Your task to perform on an android device: What's on my calendar today? Image 0: 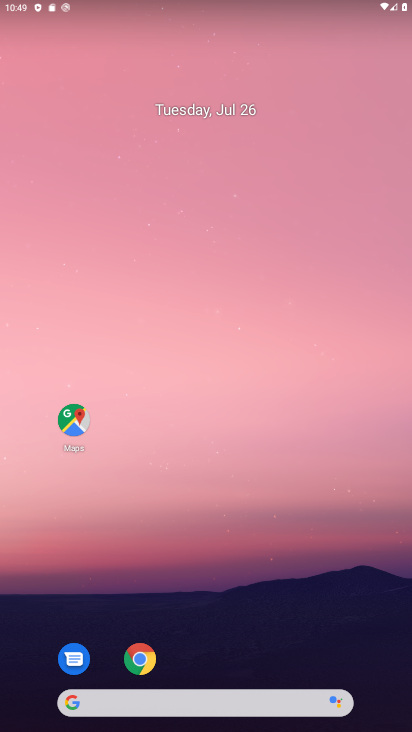
Step 0: drag from (408, 358) to (236, 96)
Your task to perform on an android device: What's on my calendar today? Image 1: 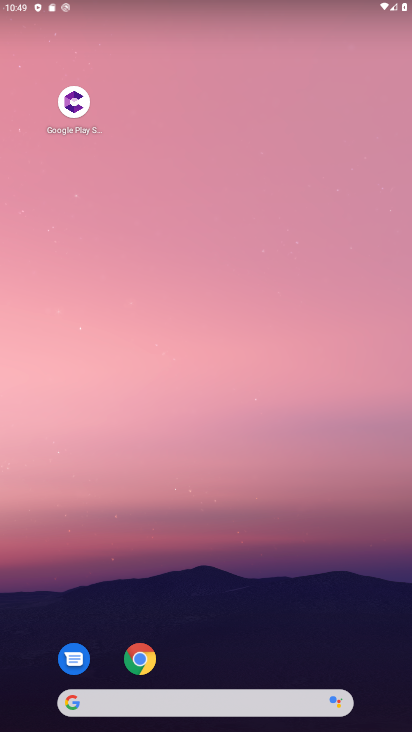
Step 1: drag from (89, 564) to (303, 82)
Your task to perform on an android device: What's on my calendar today? Image 2: 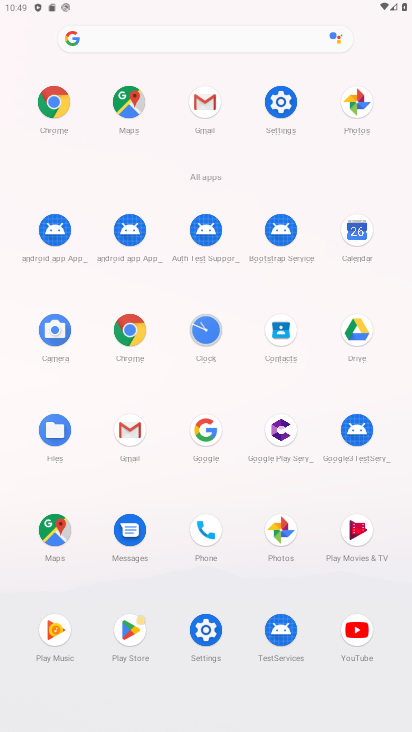
Step 2: click (360, 222)
Your task to perform on an android device: What's on my calendar today? Image 3: 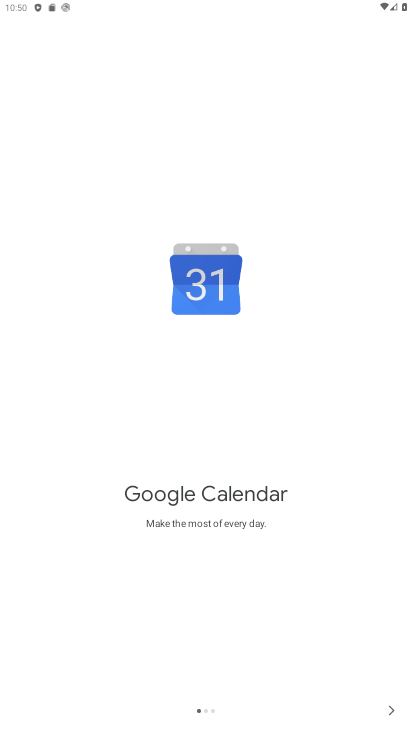
Step 3: click (390, 708)
Your task to perform on an android device: What's on my calendar today? Image 4: 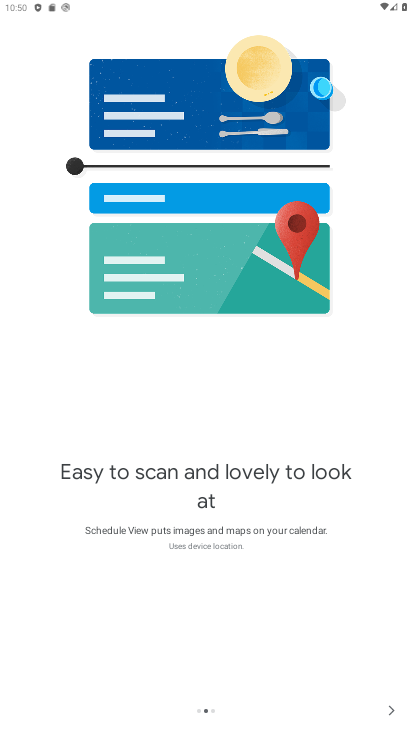
Step 4: click (392, 696)
Your task to perform on an android device: What's on my calendar today? Image 5: 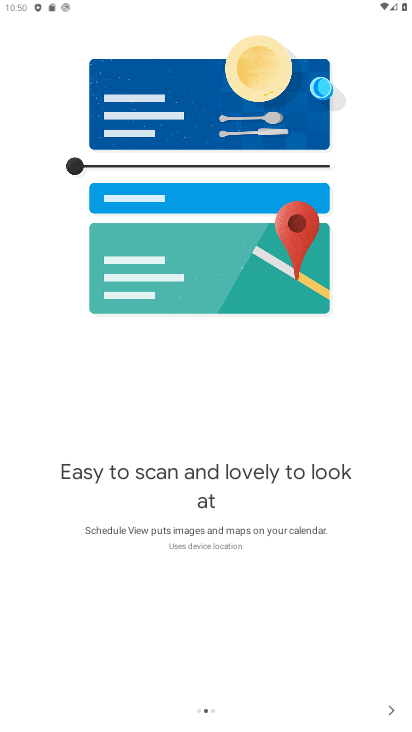
Step 5: click (394, 712)
Your task to perform on an android device: What's on my calendar today? Image 6: 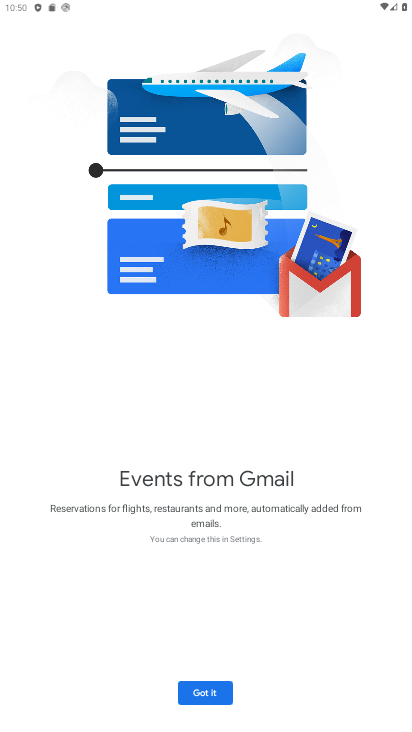
Step 6: click (212, 692)
Your task to perform on an android device: What's on my calendar today? Image 7: 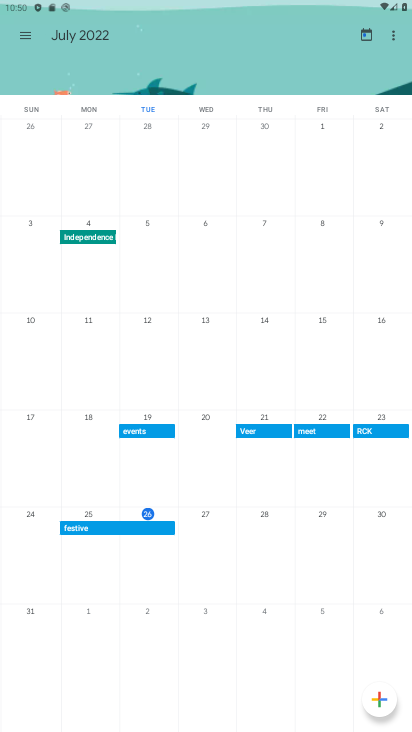
Step 7: click (26, 31)
Your task to perform on an android device: What's on my calendar today? Image 8: 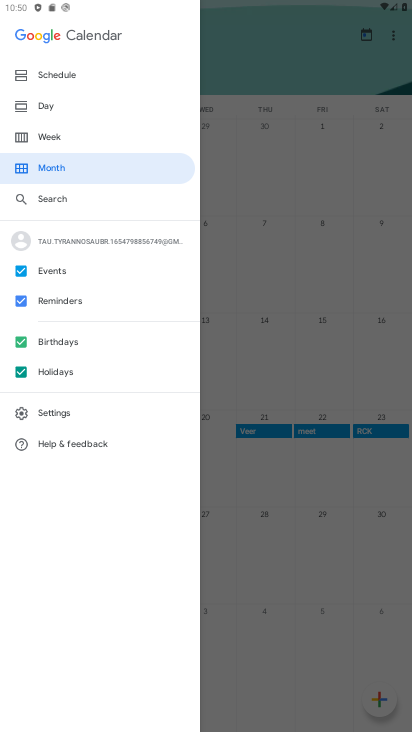
Step 8: click (82, 65)
Your task to perform on an android device: What's on my calendar today? Image 9: 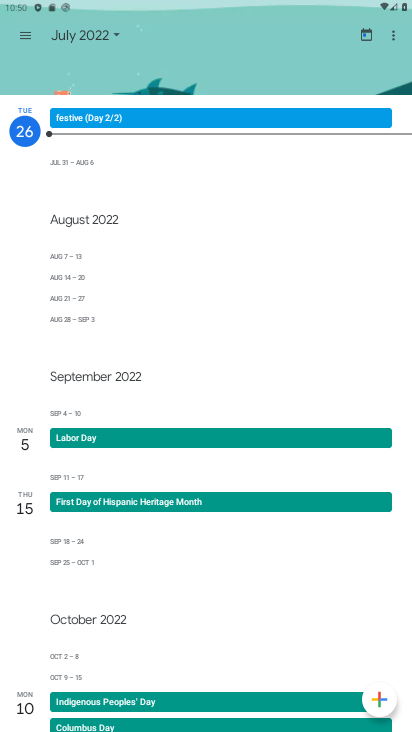
Step 9: click (106, 36)
Your task to perform on an android device: What's on my calendar today? Image 10: 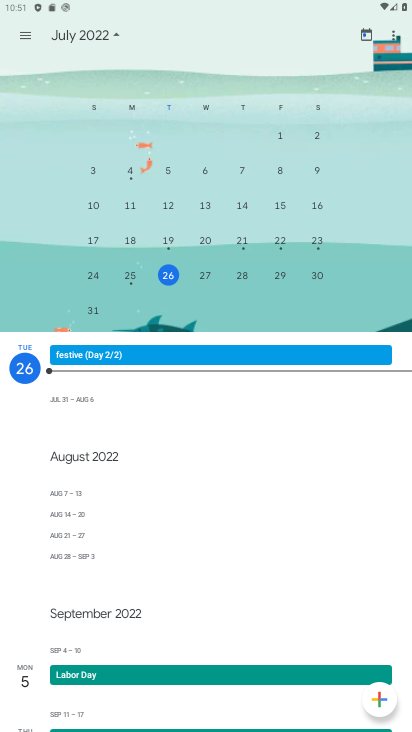
Step 10: task complete